Your task to perform on an android device: toggle priority inbox in the gmail app Image 0: 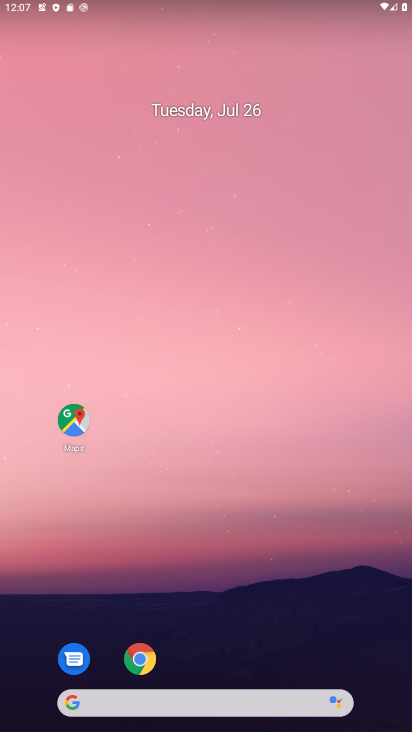
Step 0: drag from (209, 649) to (239, 180)
Your task to perform on an android device: toggle priority inbox in the gmail app Image 1: 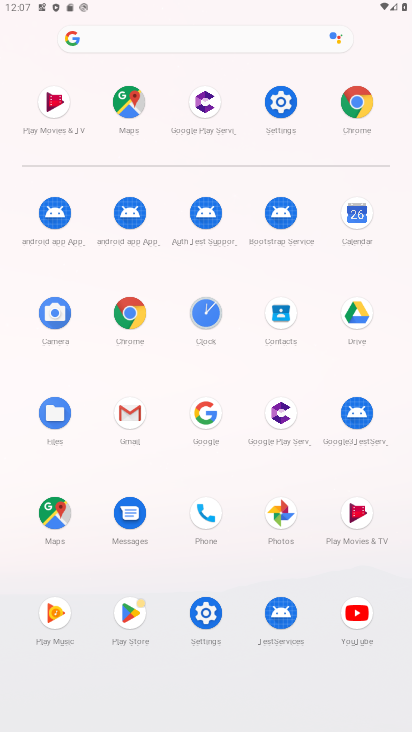
Step 1: click (122, 418)
Your task to perform on an android device: toggle priority inbox in the gmail app Image 2: 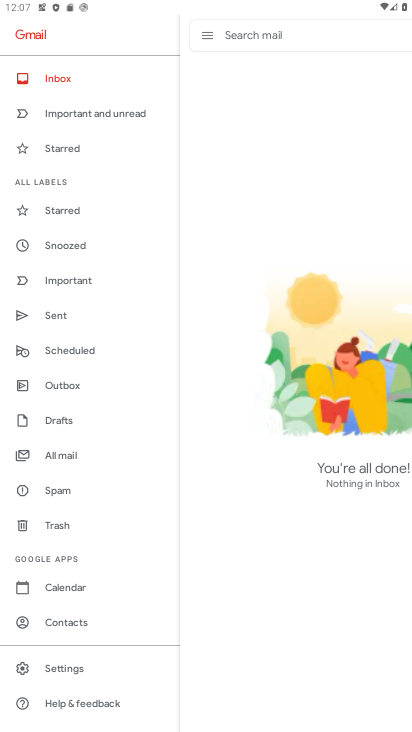
Step 2: click (88, 668)
Your task to perform on an android device: toggle priority inbox in the gmail app Image 3: 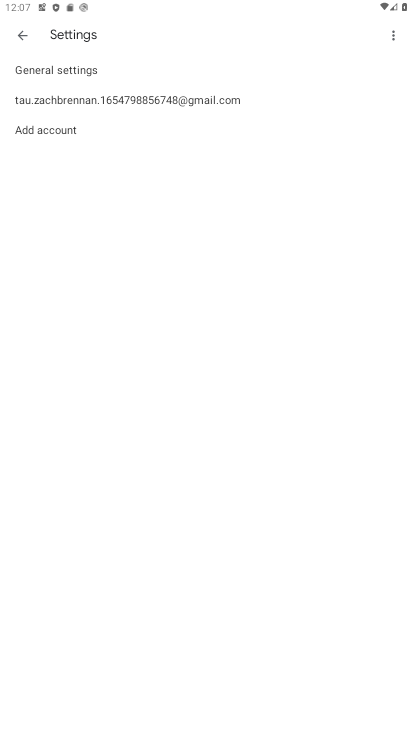
Step 3: click (180, 94)
Your task to perform on an android device: toggle priority inbox in the gmail app Image 4: 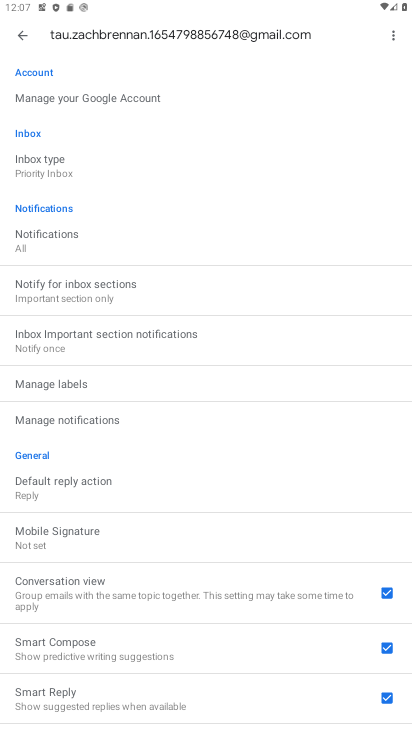
Step 4: click (68, 172)
Your task to perform on an android device: toggle priority inbox in the gmail app Image 5: 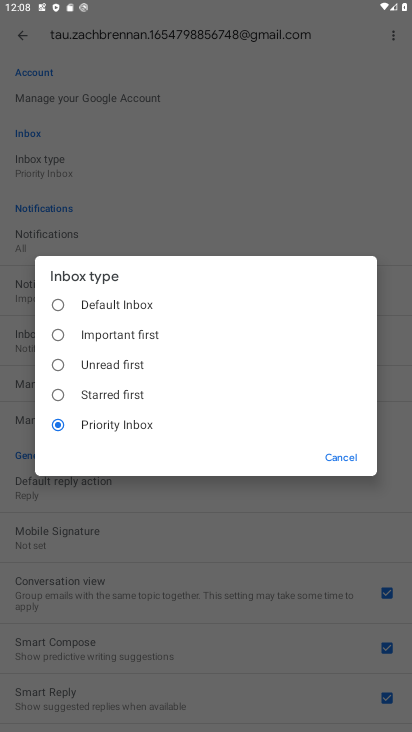
Step 5: click (92, 291)
Your task to perform on an android device: toggle priority inbox in the gmail app Image 6: 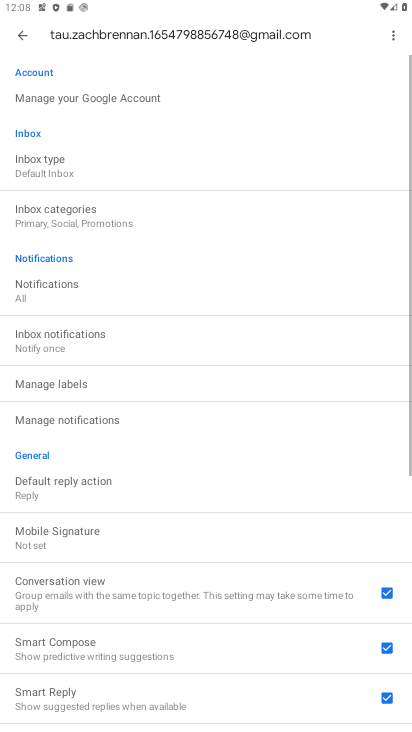
Step 6: click (93, 297)
Your task to perform on an android device: toggle priority inbox in the gmail app Image 7: 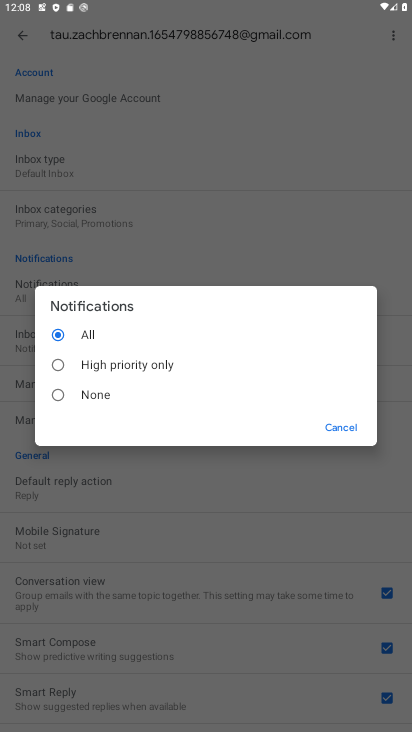
Step 7: click (347, 431)
Your task to perform on an android device: toggle priority inbox in the gmail app Image 8: 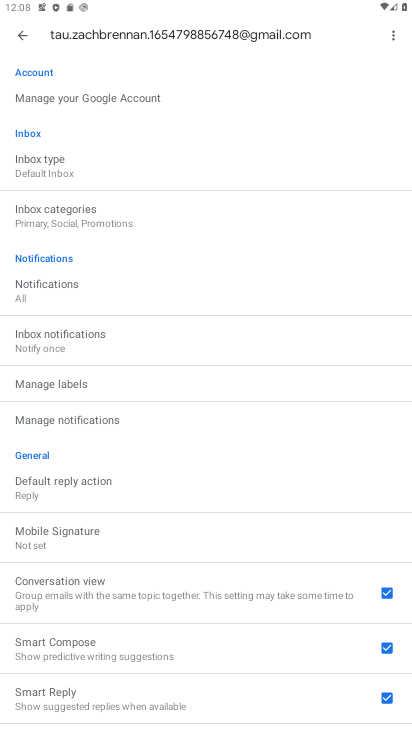
Step 8: task complete